Your task to perform on an android device: turn off data saver in the chrome app Image 0: 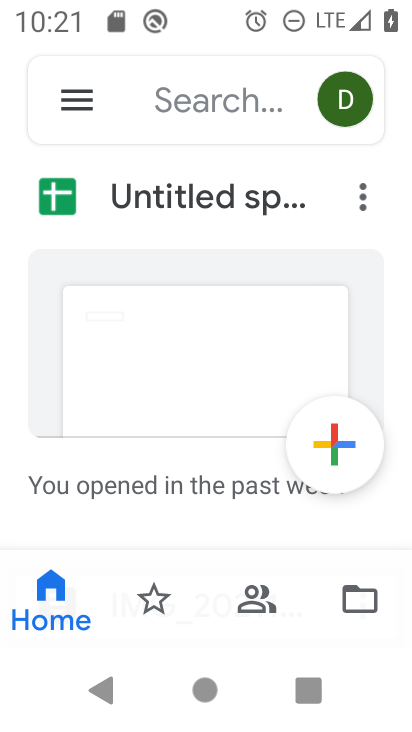
Step 0: press home button
Your task to perform on an android device: turn off data saver in the chrome app Image 1: 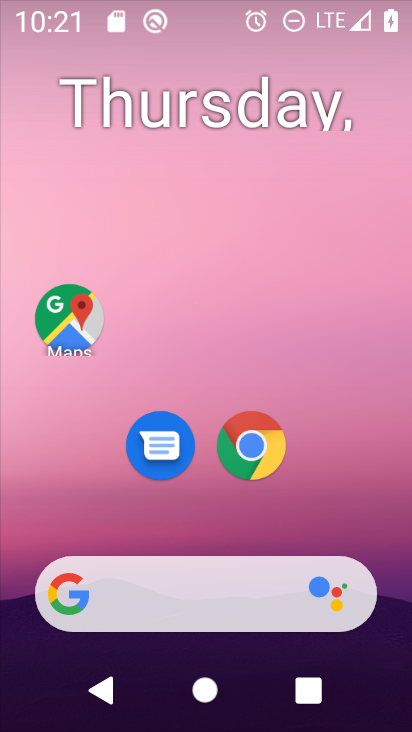
Step 1: drag from (408, 637) to (348, 46)
Your task to perform on an android device: turn off data saver in the chrome app Image 2: 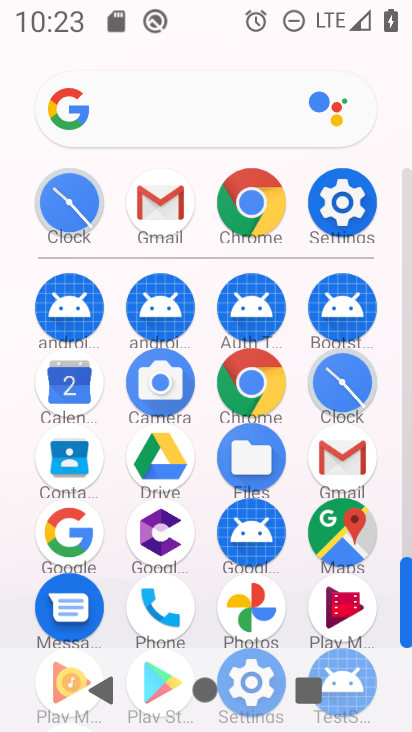
Step 2: click (257, 375)
Your task to perform on an android device: turn off data saver in the chrome app Image 3: 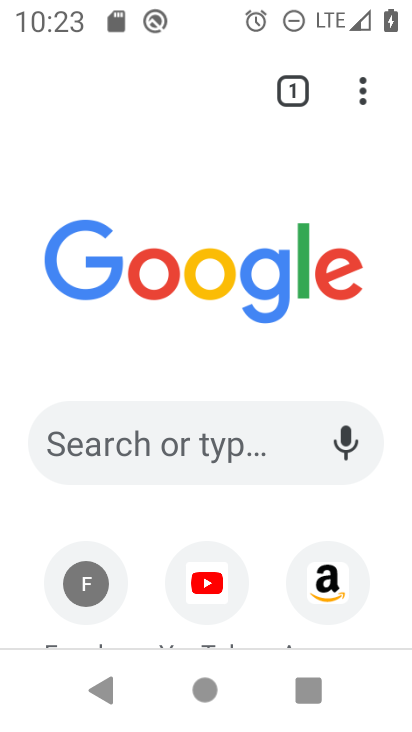
Step 3: click (366, 87)
Your task to perform on an android device: turn off data saver in the chrome app Image 4: 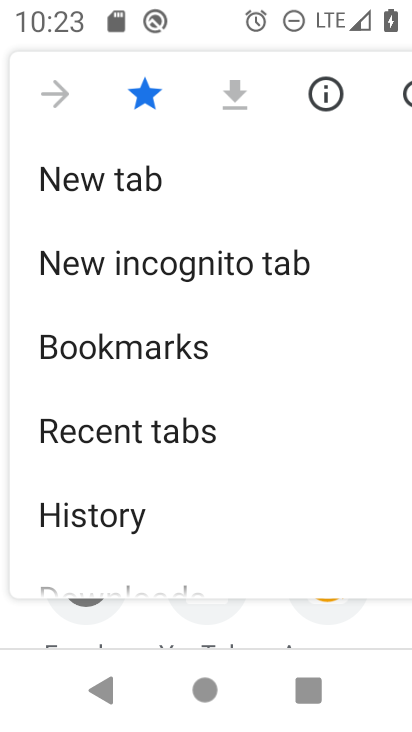
Step 4: drag from (251, 528) to (267, 133)
Your task to perform on an android device: turn off data saver in the chrome app Image 5: 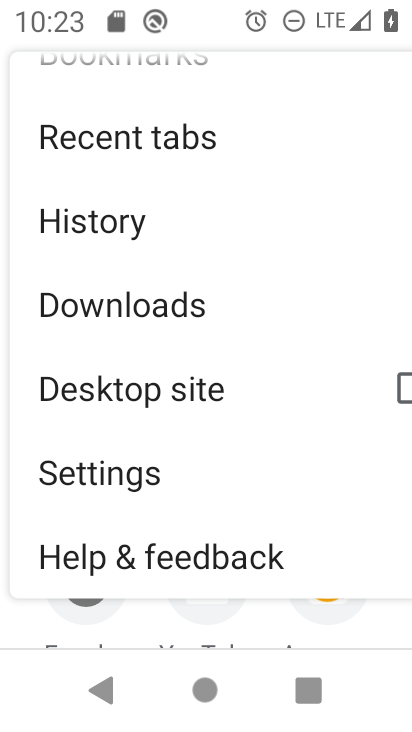
Step 5: click (206, 476)
Your task to perform on an android device: turn off data saver in the chrome app Image 6: 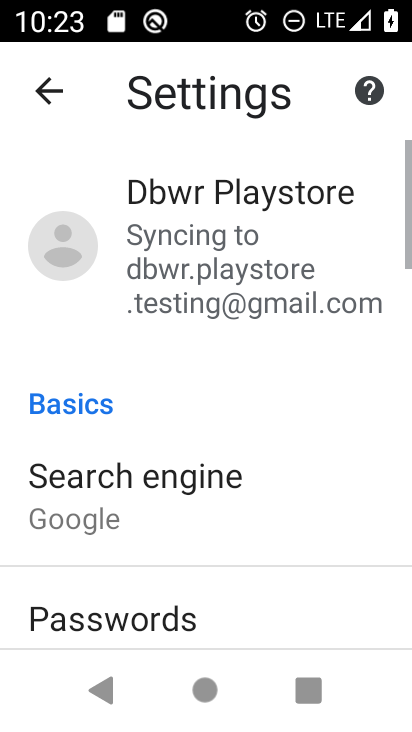
Step 6: drag from (207, 597) to (212, 5)
Your task to perform on an android device: turn off data saver in the chrome app Image 7: 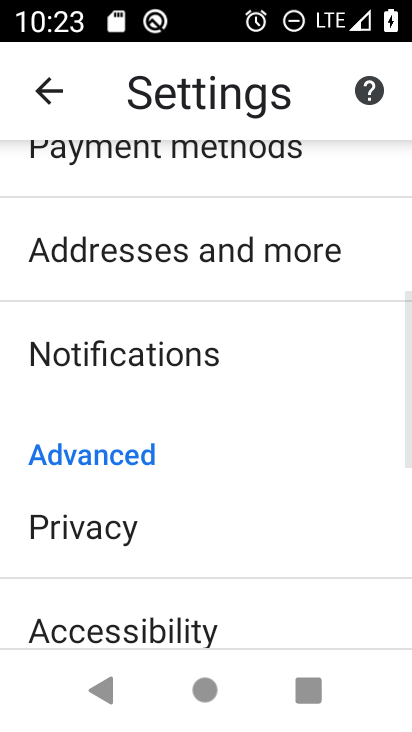
Step 7: drag from (220, 584) to (215, 111)
Your task to perform on an android device: turn off data saver in the chrome app Image 8: 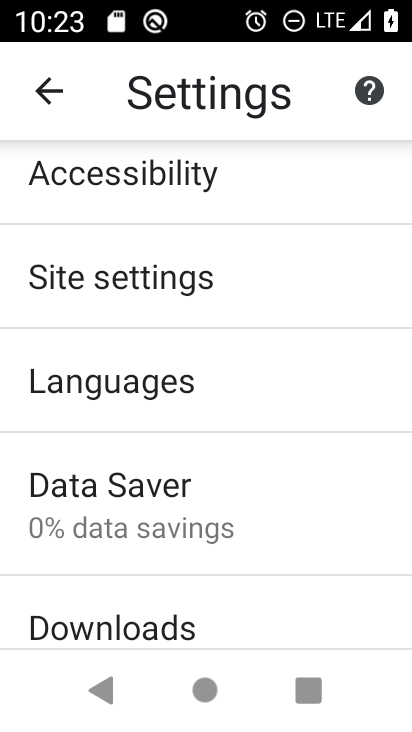
Step 8: click (192, 538)
Your task to perform on an android device: turn off data saver in the chrome app Image 9: 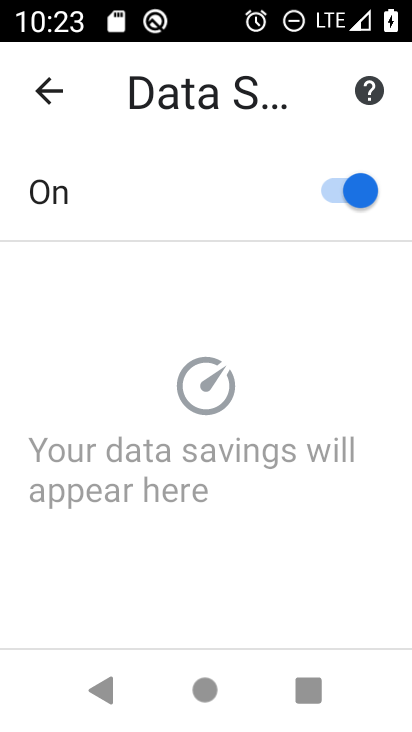
Step 9: click (305, 189)
Your task to perform on an android device: turn off data saver in the chrome app Image 10: 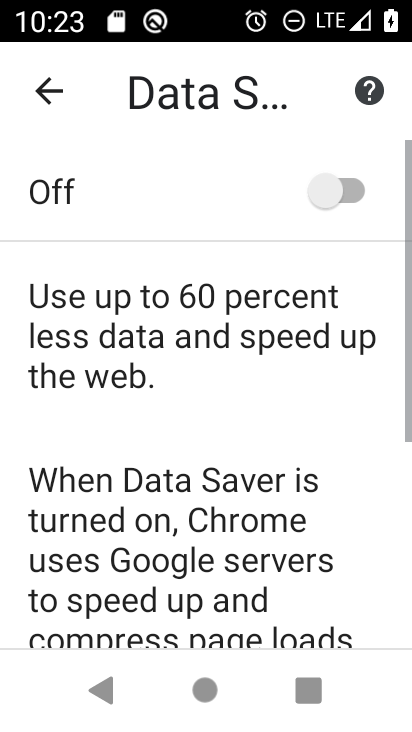
Step 10: task complete